Your task to perform on an android device: Turn off the flashlight Image 0: 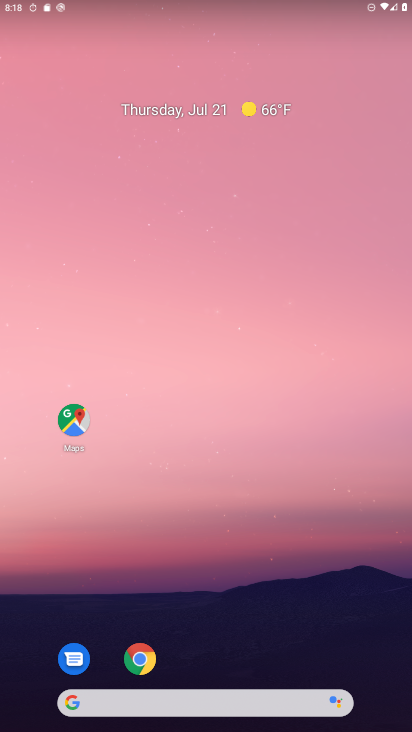
Step 0: drag from (190, 628) to (249, 224)
Your task to perform on an android device: Turn off the flashlight Image 1: 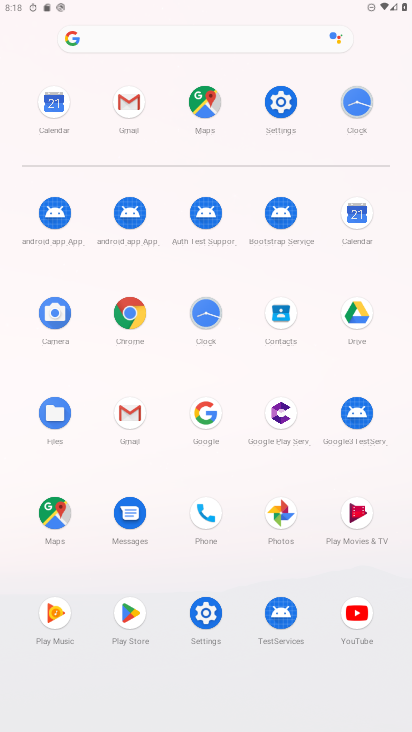
Step 1: click (285, 106)
Your task to perform on an android device: Turn off the flashlight Image 2: 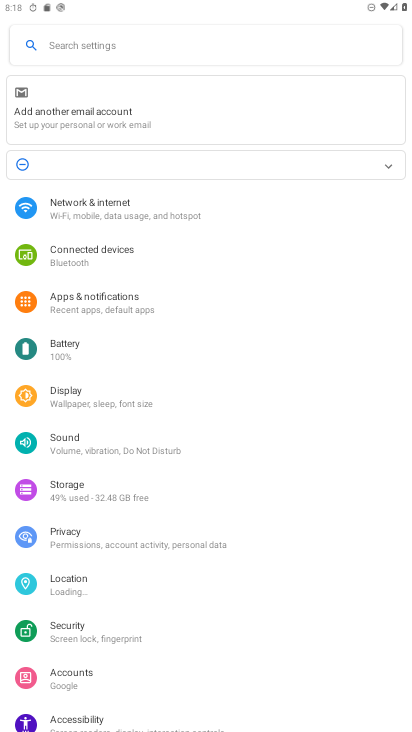
Step 2: click (108, 51)
Your task to perform on an android device: Turn off the flashlight Image 3: 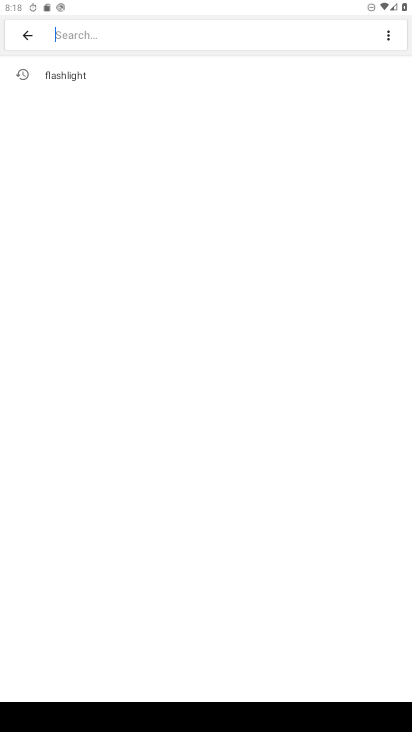
Step 3: click (51, 77)
Your task to perform on an android device: Turn off the flashlight Image 4: 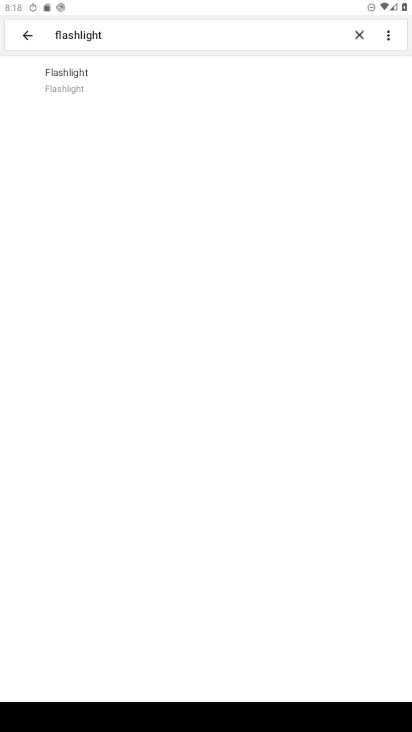
Step 4: click (140, 82)
Your task to perform on an android device: Turn off the flashlight Image 5: 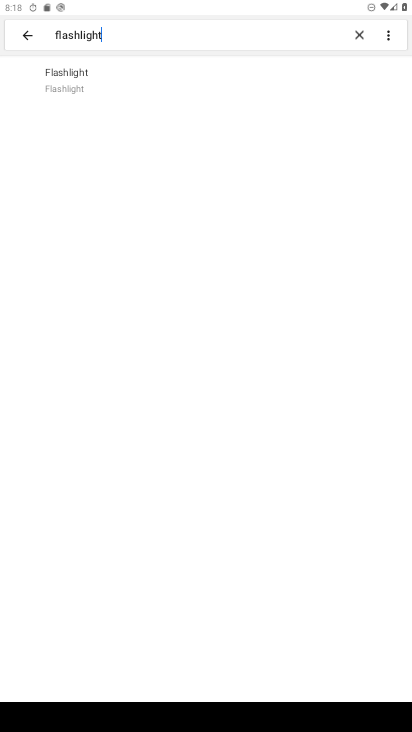
Step 5: task complete